Your task to perform on an android device: Search for a new desk on Ikea Image 0: 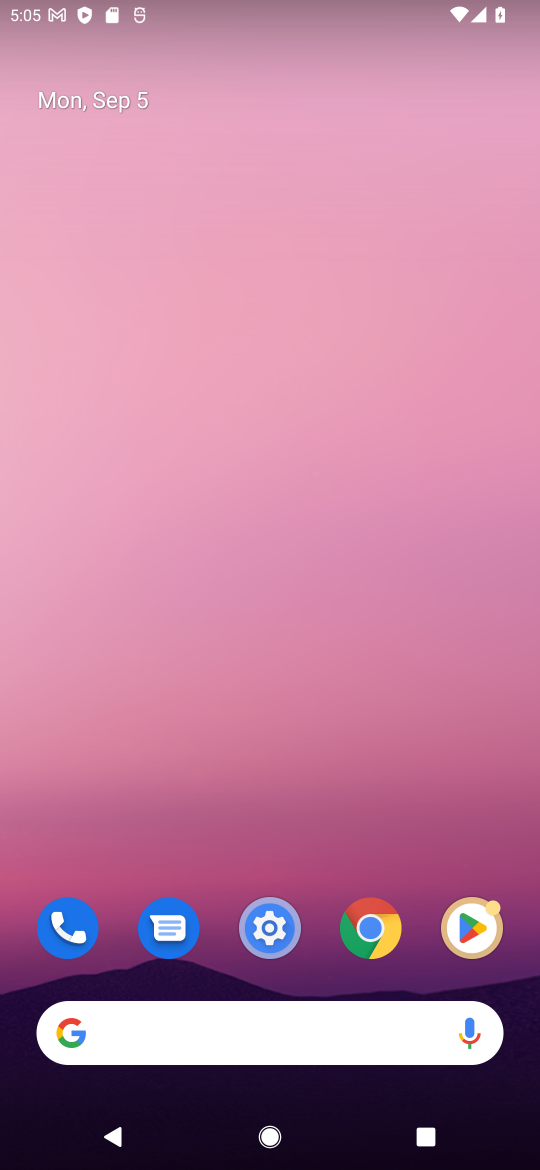
Step 0: click (383, 928)
Your task to perform on an android device: Search for a new desk on Ikea Image 1: 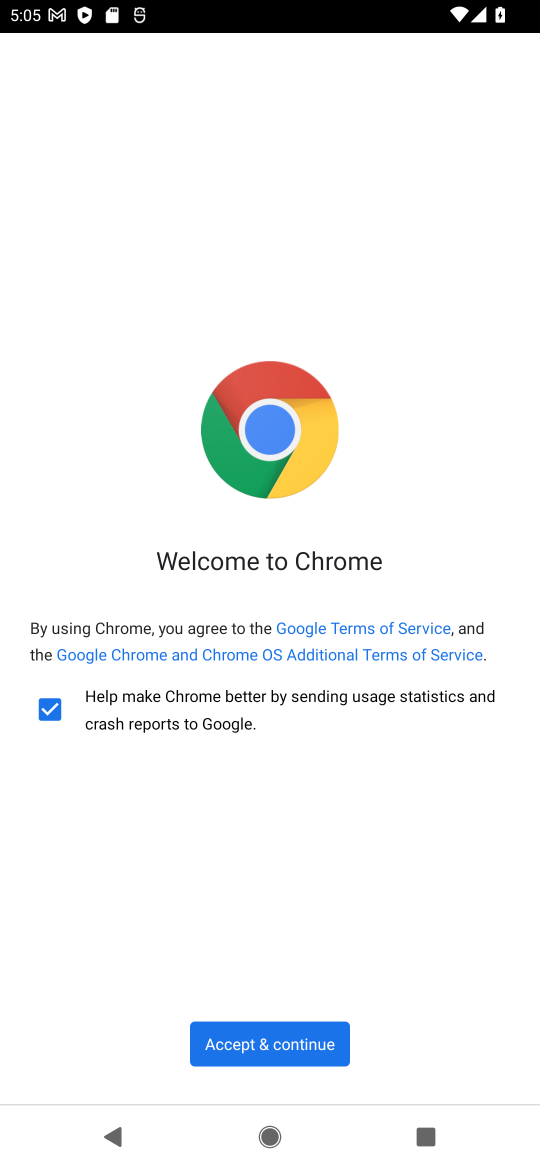
Step 1: click (273, 1045)
Your task to perform on an android device: Search for a new desk on Ikea Image 2: 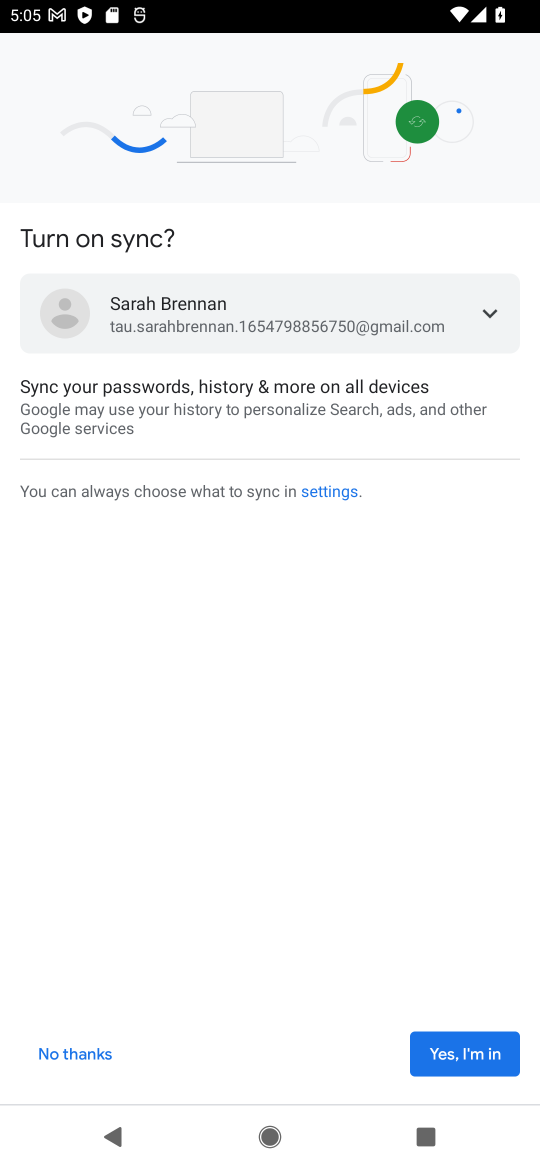
Step 2: click (475, 1052)
Your task to perform on an android device: Search for a new desk on Ikea Image 3: 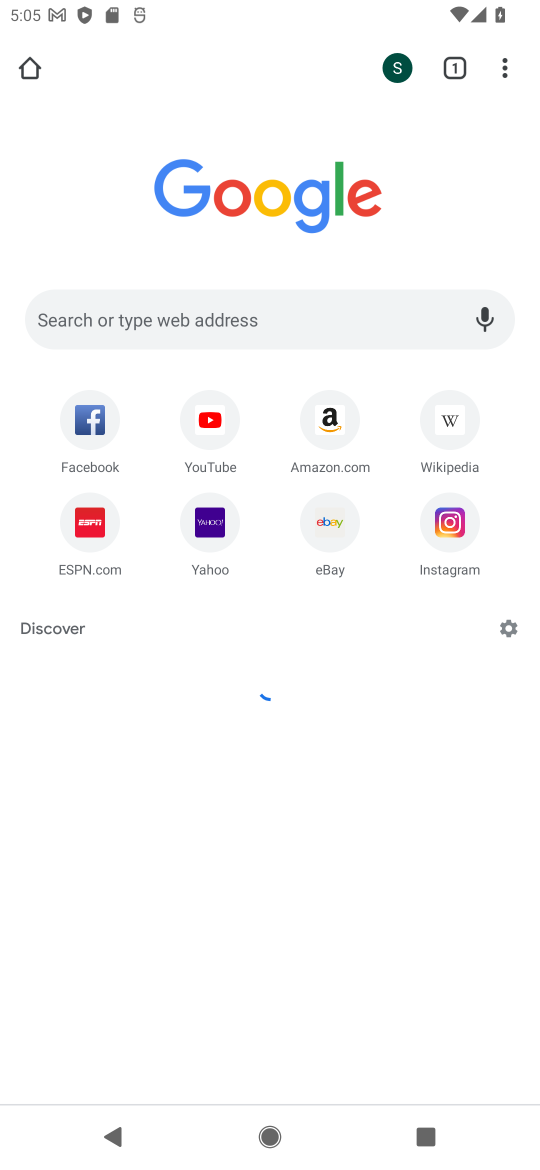
Step 3: click (315, 319)
Your task to perform on an android device: Search for a new desk on Ikea Image 4: 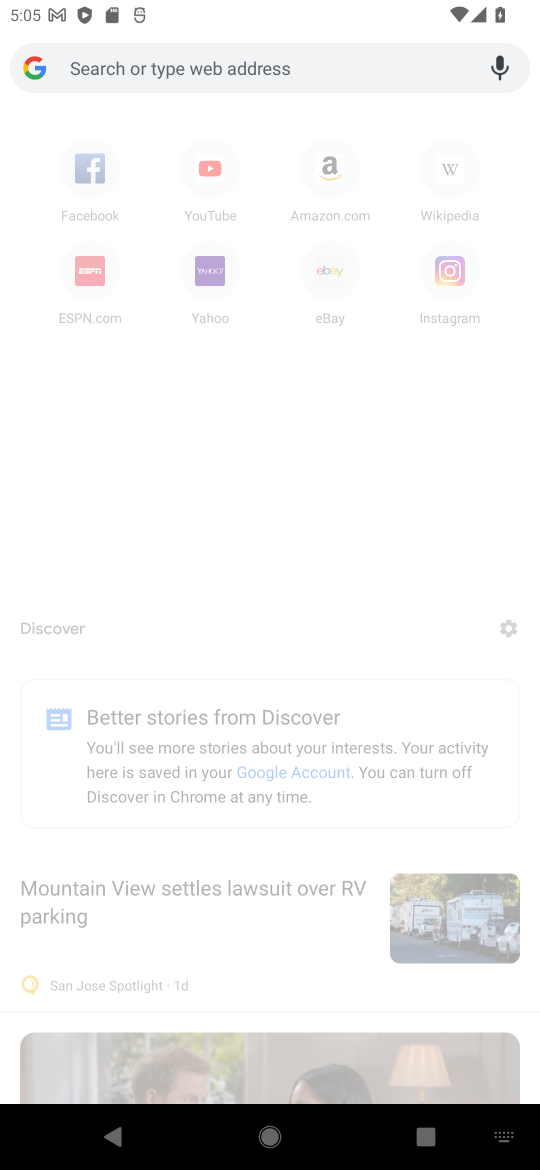
Step 4: type "ikea"
Your task to perform on an android device: Search for a new desk on Ikea Image 5: 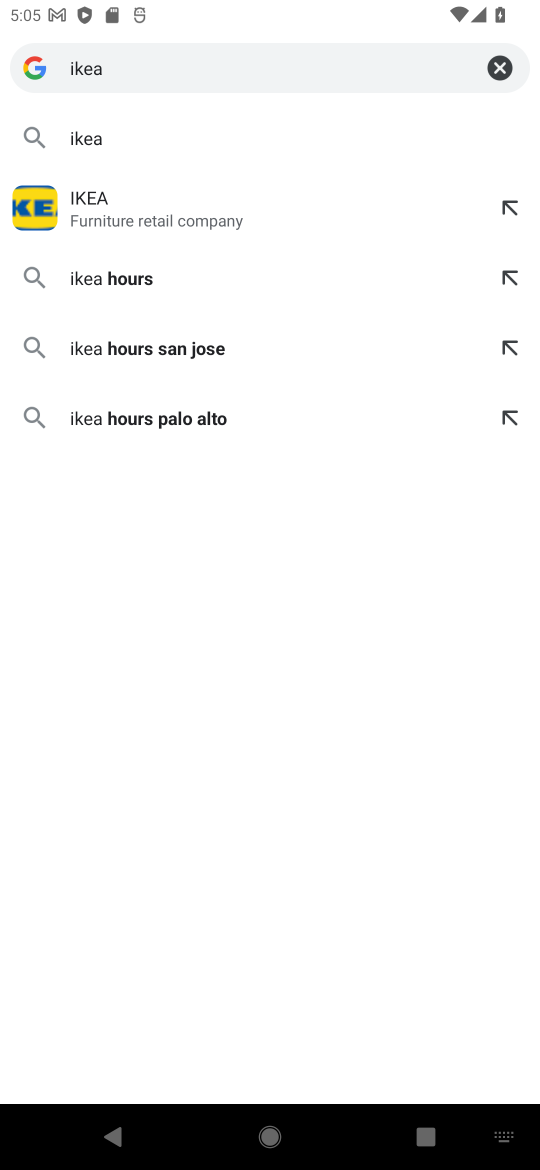
Step 5: click (99, 226)
Your task to perform on an android device: Search for a new desk on Ikea Image 6: 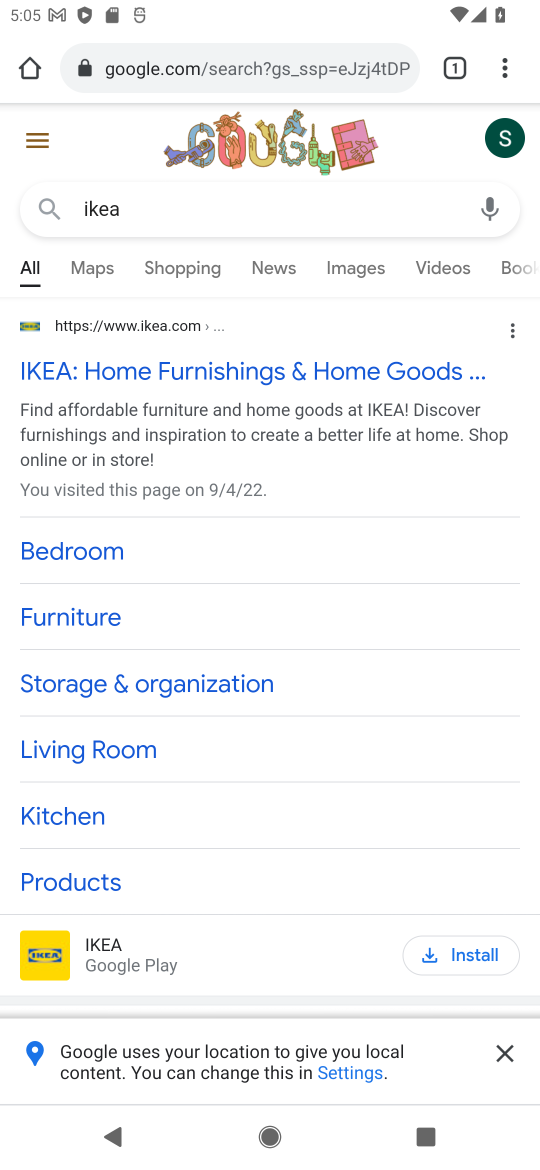
Step 6: click (188, 389)
Your task to perform on an android device: Search for a new desk on Ikea Image 7: 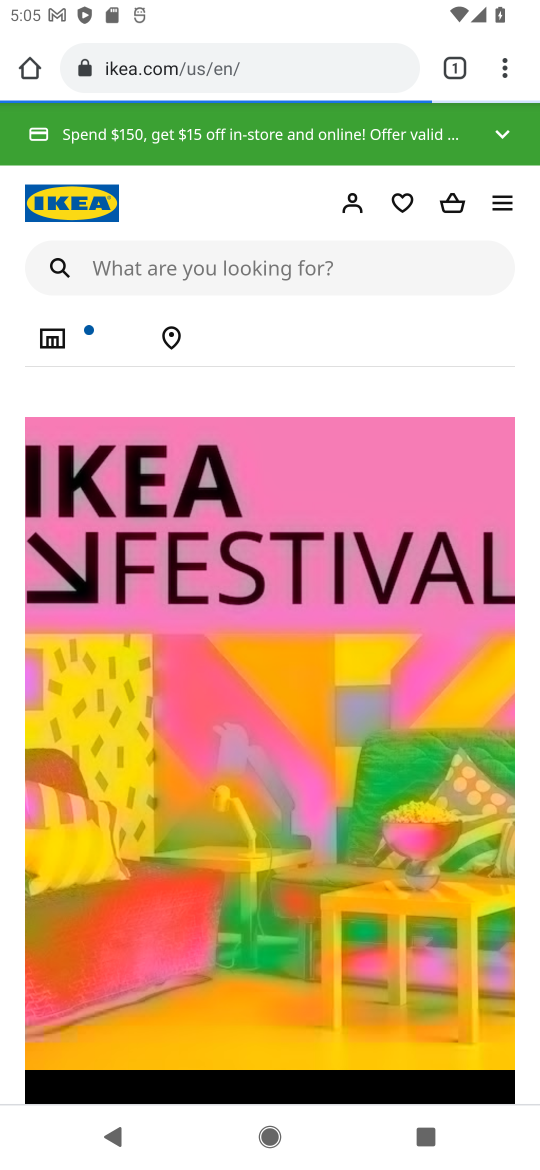
Step 7: click (261, 264)
Your task to perform on an android device: Search for a new desk on Ikea Image 8: 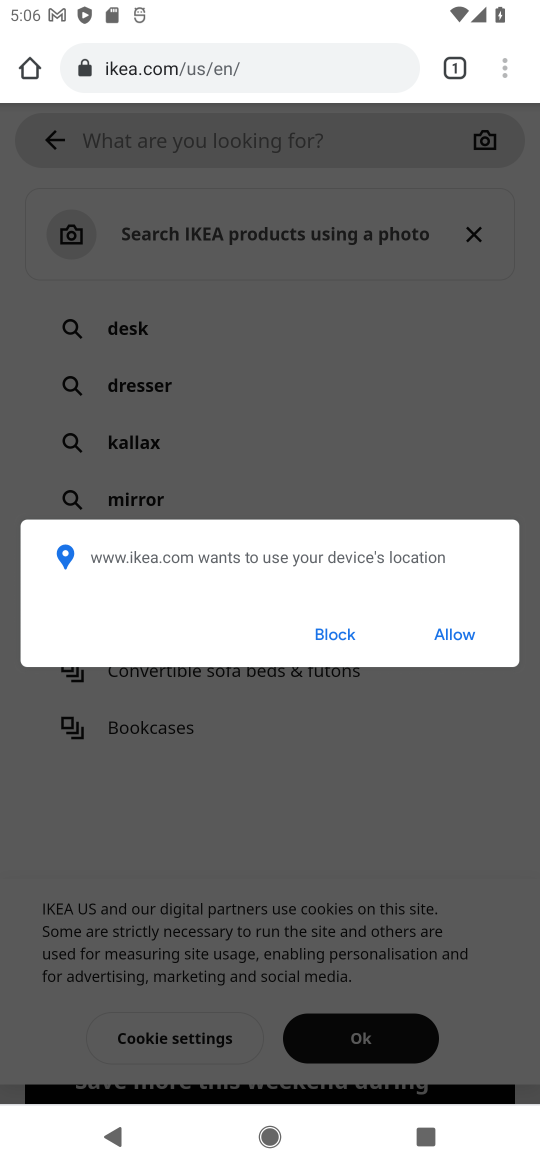
Step 8: type "new desk"
Your task to perform on an android device: Search for a new desk on Ikea Image 9: 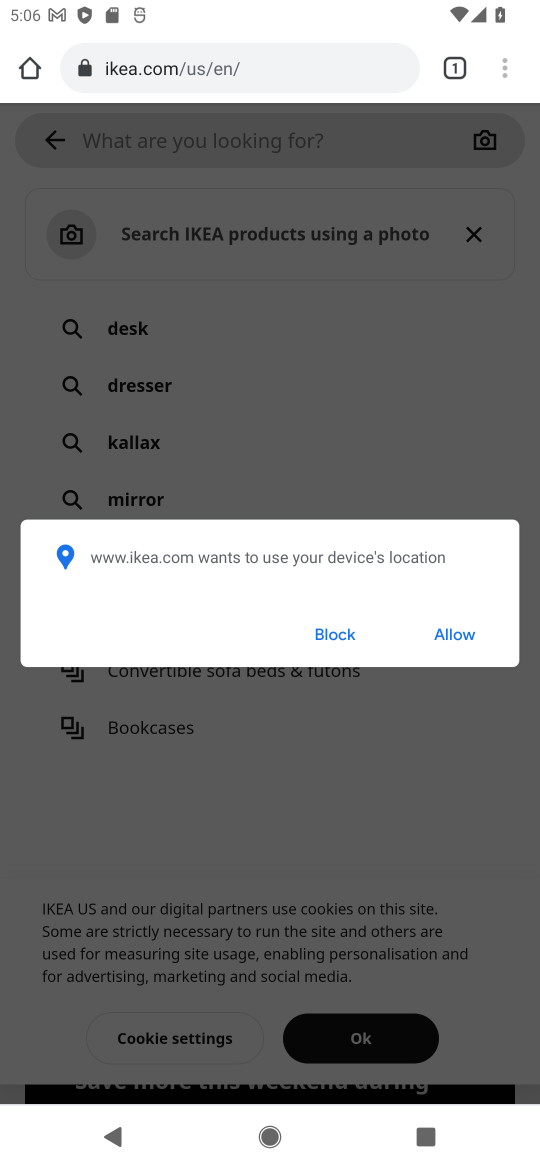
Step 9: click (342, 630)
Your task to perform on an android device: Search for a new desk on Ikea Image 10: 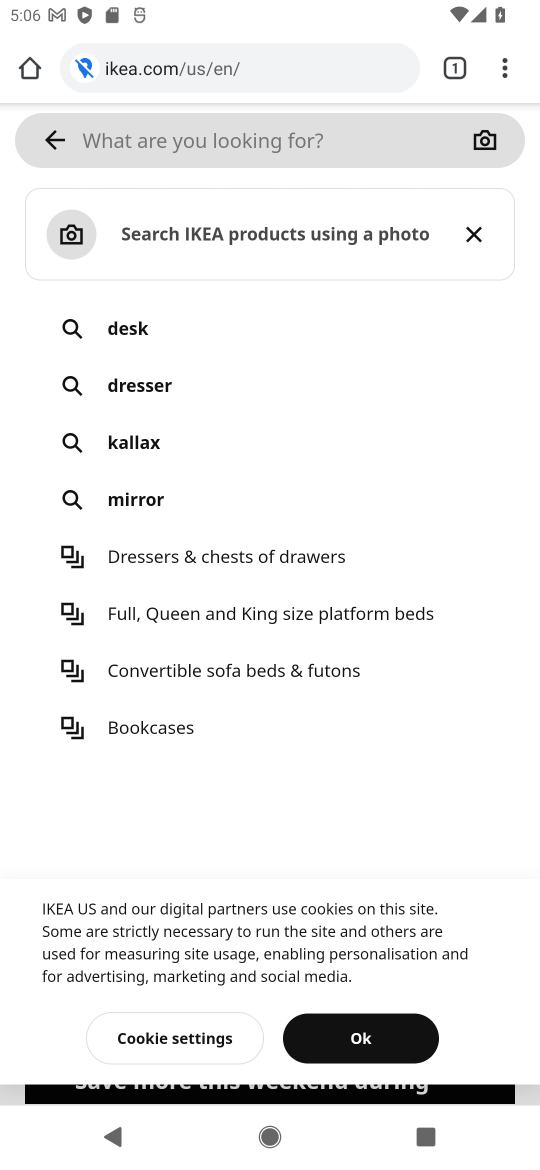
Step 10: click (218, 136)
Your task to perform on an android device: Search for a new desk on Ikea Image 11: 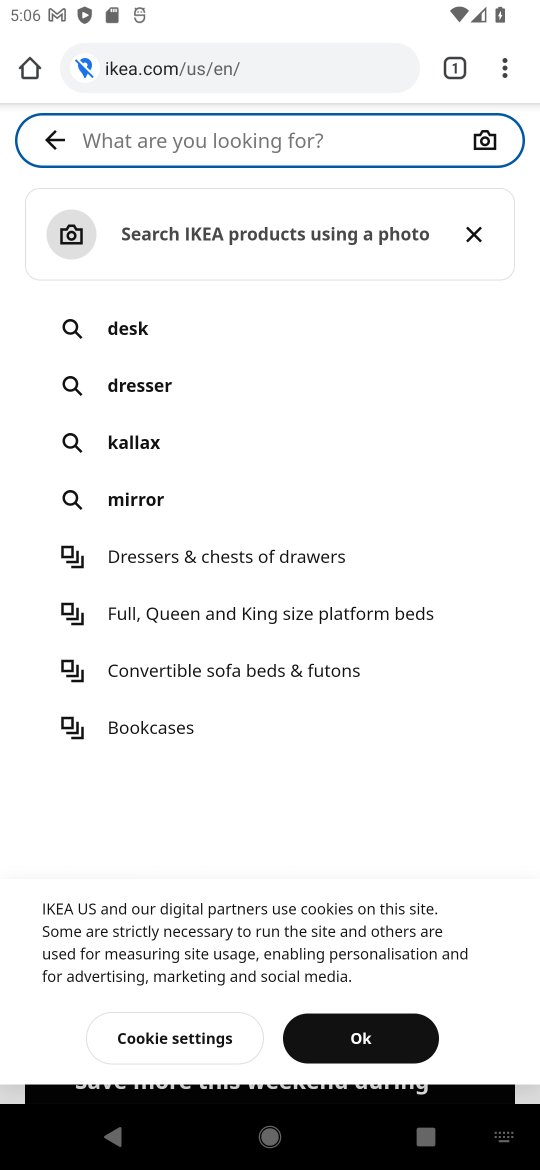
Step 11: type "new desk"
Your task to perform on an android device: Search for a new desk on Ikea Image 12: 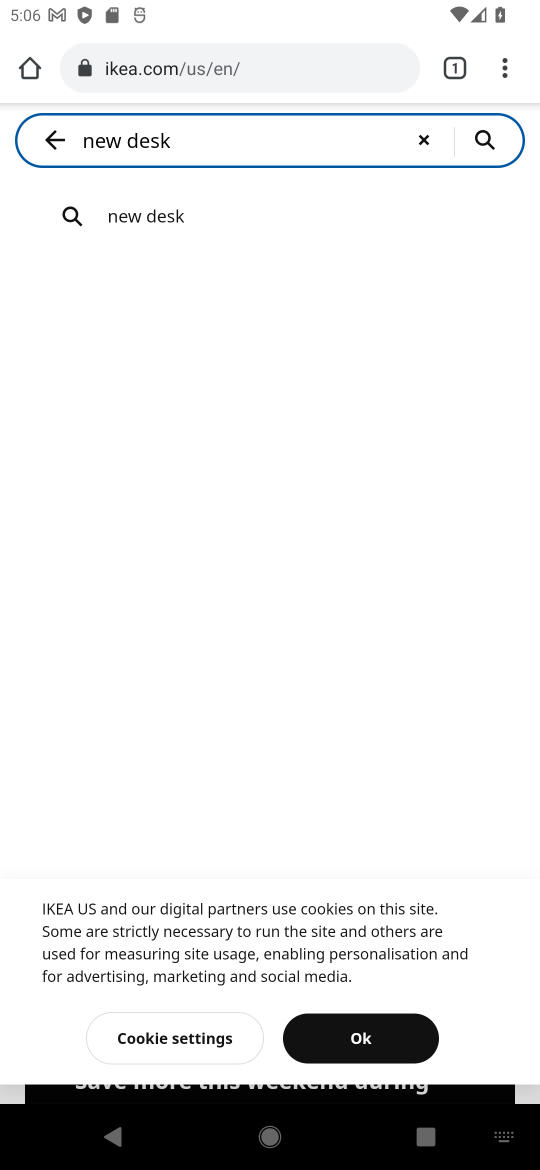
Step 12: click (174, 220)
Your task to perform on an android device: Search for a new desk on Ikea Image 13: 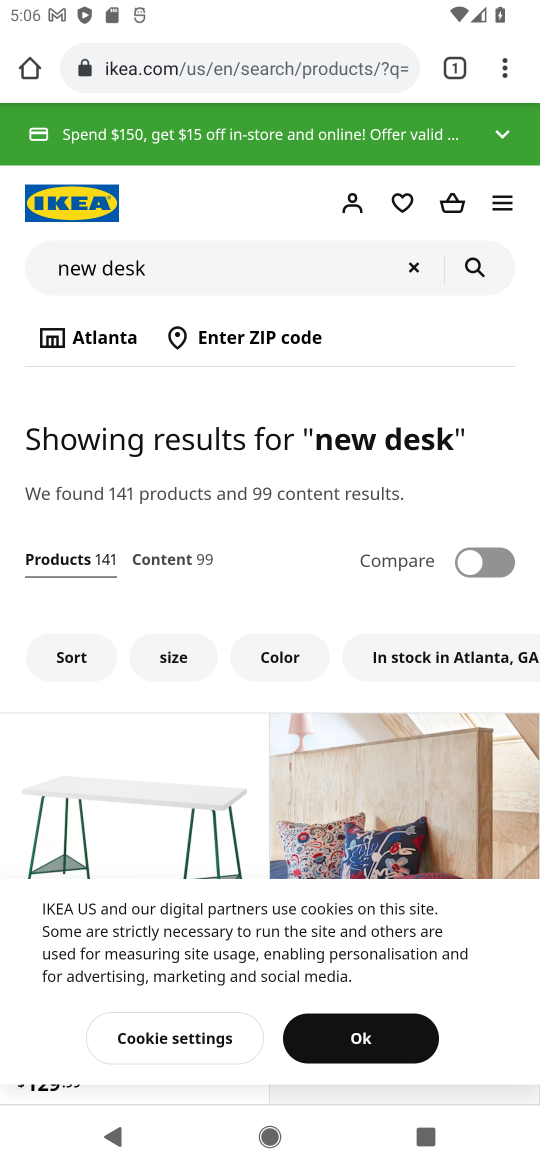
Step 13: task complete